Your task to perform on an android device: change your default location settings in chrome Image 0: 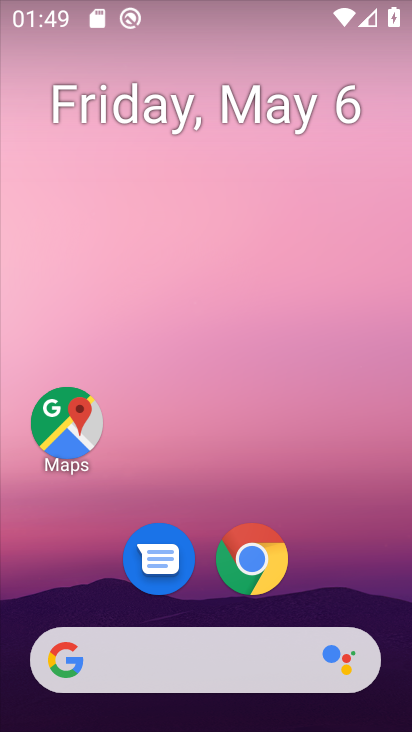
Step 0: drag from (339, 600) to (288, 16)
Your task to perform on an android device: change your default location settings in chrome Image 1: 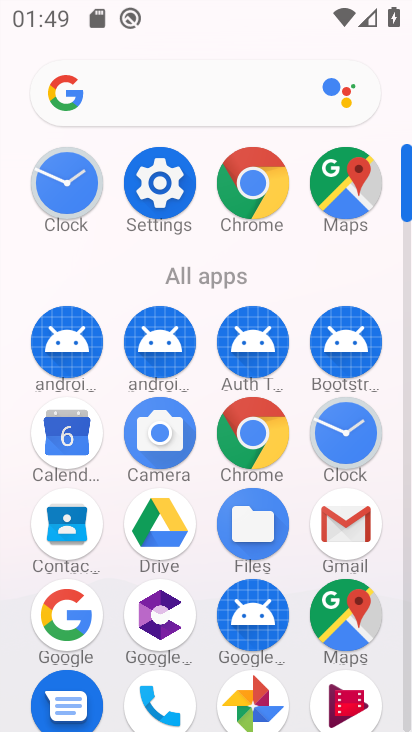
Step 1: click (270, 419)
Your task to perform on an android device: change your default location settings in chrome Image 2: 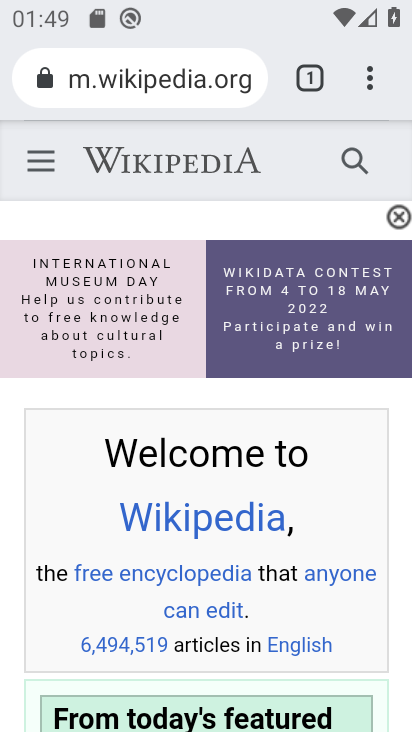
Step 2: click (369, 75)
Your task to perform on an android device: change your default location settings in chrome Image 3: 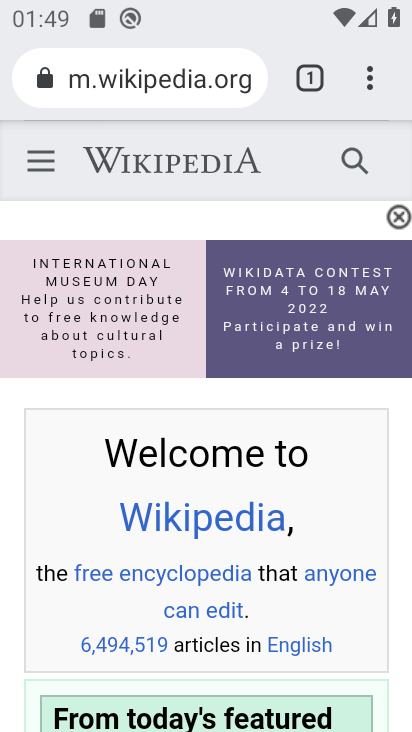
Step 3: drag from (365, 71) to (185, 627)
Your task to perform on an android device: change your default location settings in chrome Image 4: 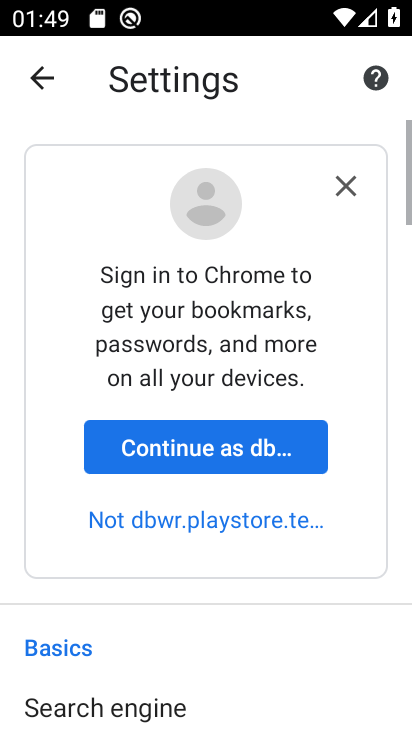
Step 4: drag from (245, 700) to (269, 139)
Your task to perform on an android device: change your default location settings in chrome Image 5: 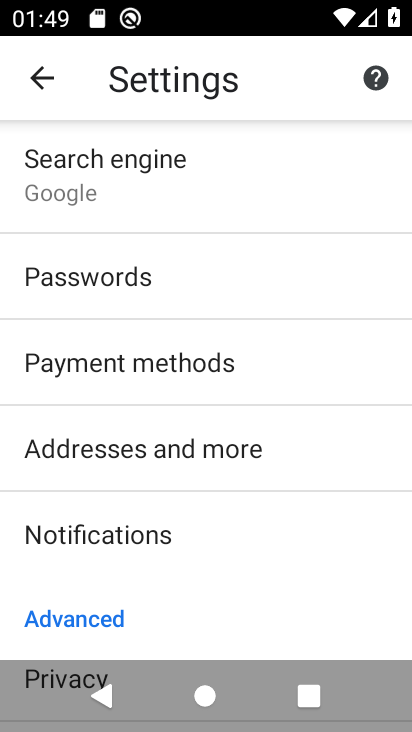
Step 5: drag from (258, 641) to (216, 188)
Your task to perform on an android device: change your default location settings in chrome Image 6: 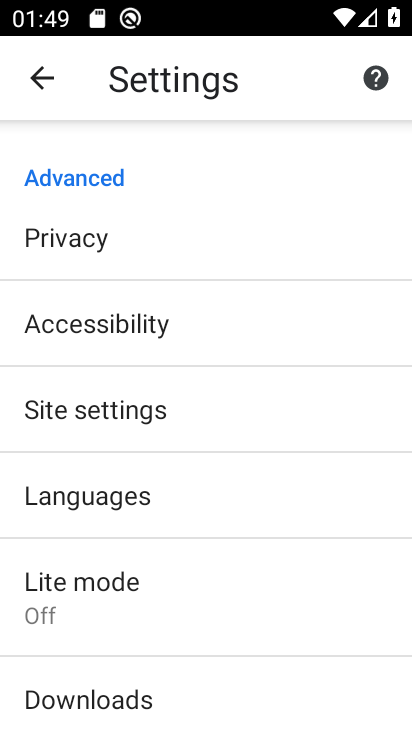
Step 6: click (151, 415)
Your task to perform on an android device: change your default location settings in chrome Image 7: 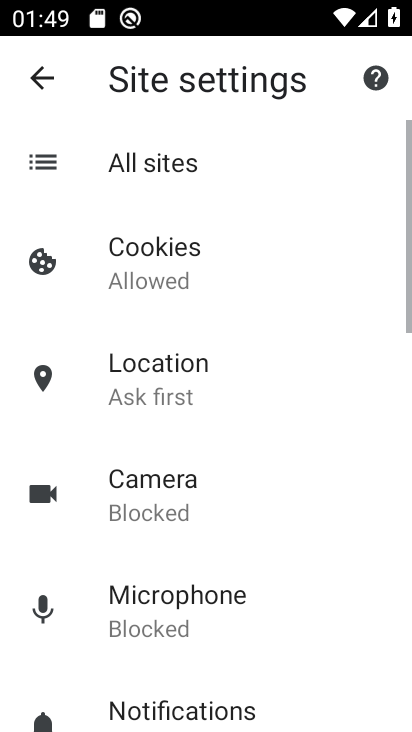
Step 7: click (170, 366)
Your task to perform on an android device: change your default location settings in chrome Image 8: 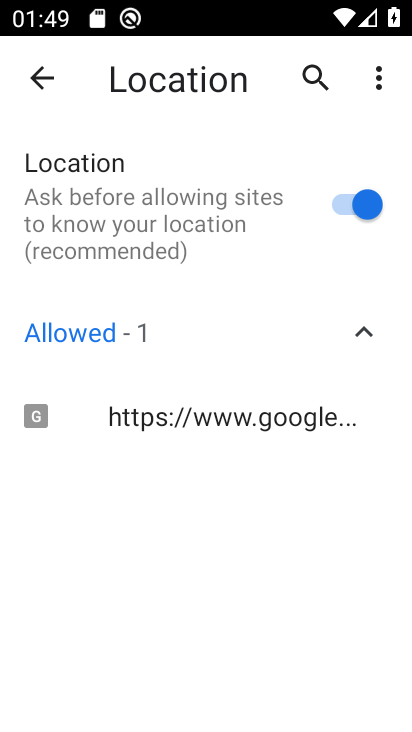
Step 8: click (310, 428)
Your task to perform on an android device: change your default location settings in chrome Image 9: 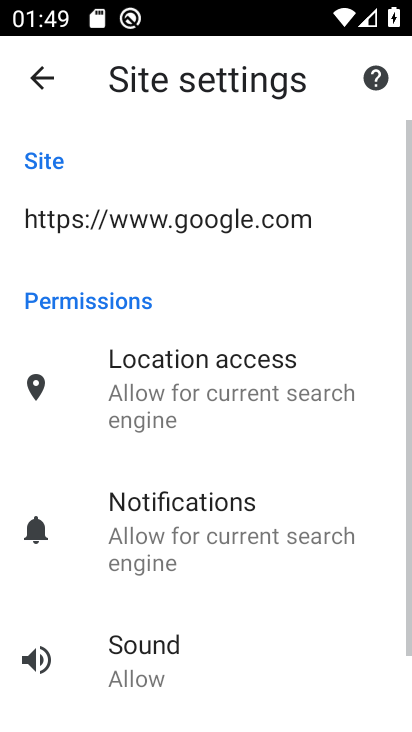
Step 9: click (271, 374)
Your task to perform on an android device: change your default location settings in chrome Image 10: 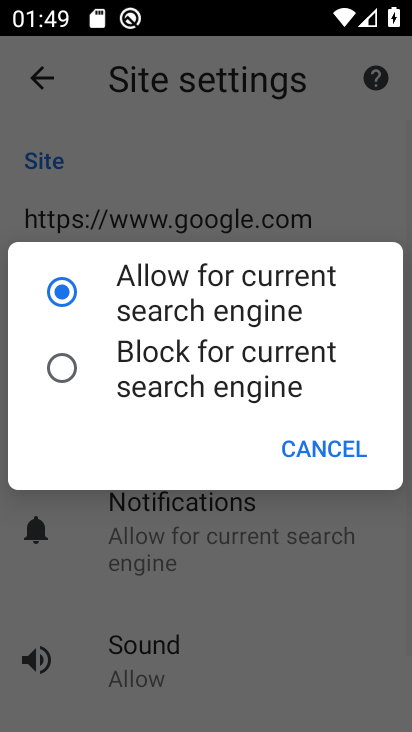
Step 10: click (250, 385)
Your task to perform on an android device: change your default location settings in chrome Image 11: 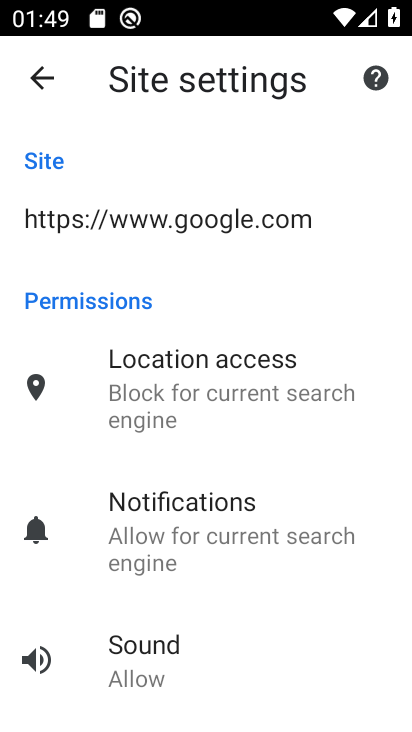
Step 11: task complete